Your task to perform on an android device: What's on my calendar today? Image 0: 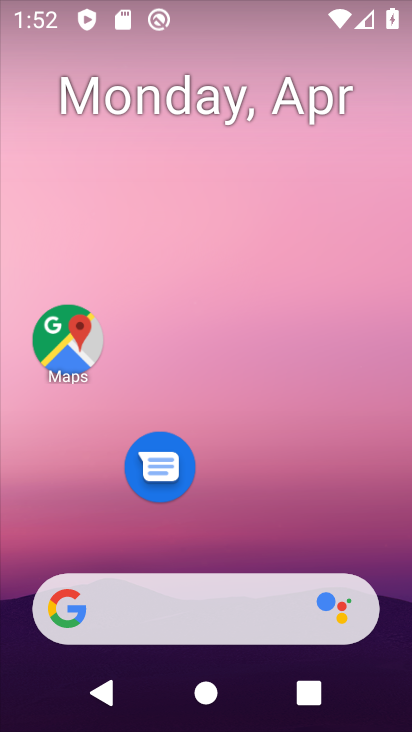
Step 0: drag from (265, 544) to (265, 0)
Your task to perform on an android device: What's on my calendar today? Image 1: 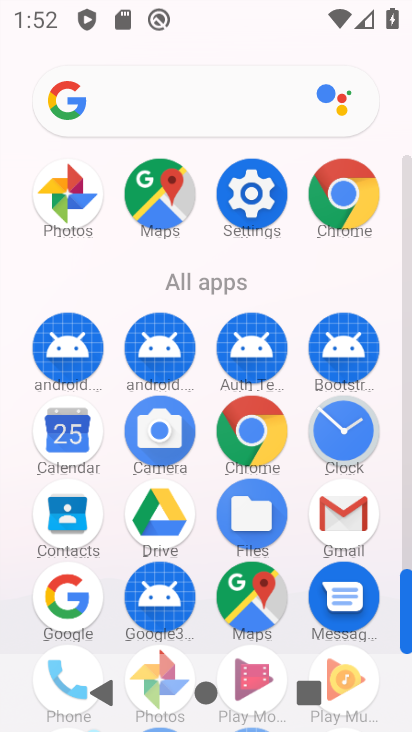
Step 1: click (56, 441)
Your task to perform on an android device: What's on my calendar today? Image 2: 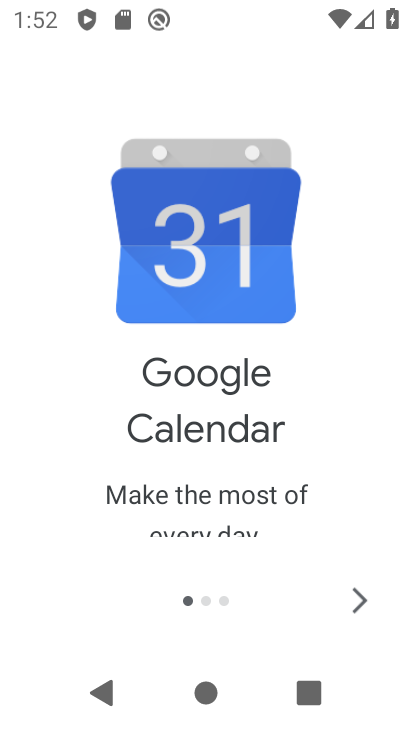
Step 2: click (350, 602)
Your task to perform on an android device: What's on my calendar today? Image 3: 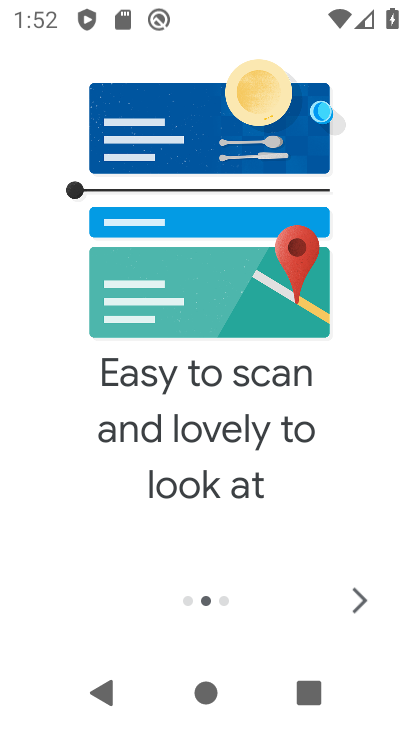
Step 3: click (353, 591)
Your task to perform on an android device: What's on my calendar today? Image 4: 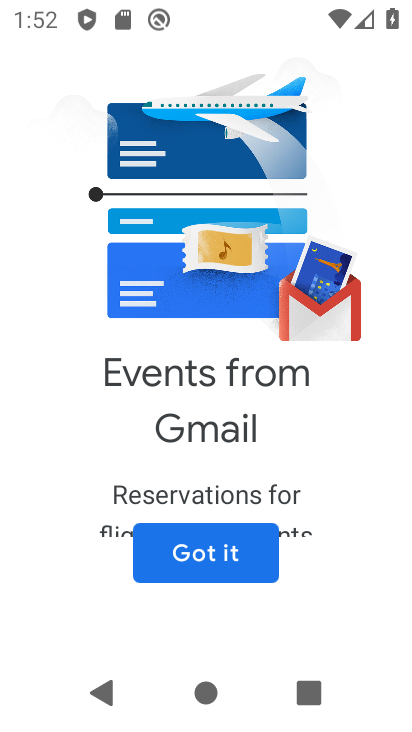
Step 4: click (225, 558)
Your task to perform on an android device: What's on my calendar today? Image 5: 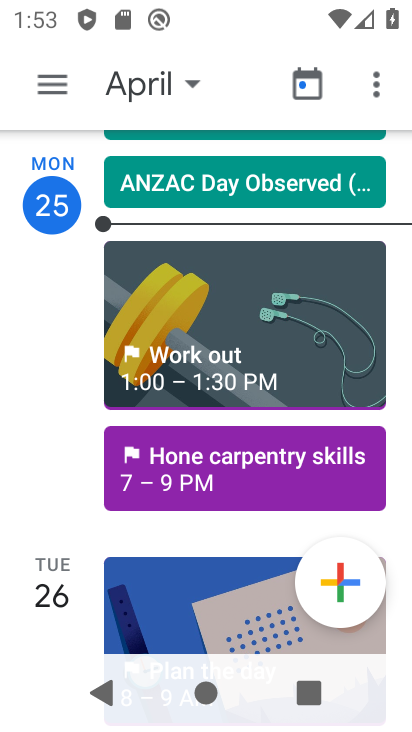
Step 5: click (121, 85)
Your task to perform on an android device: What's on my calendar today? Image 6: 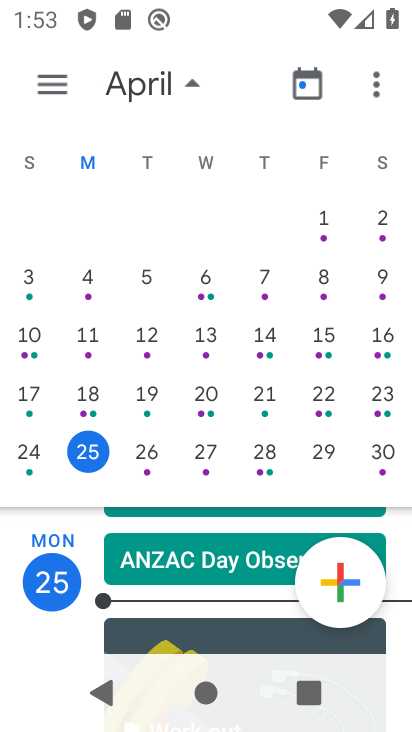
Step 6: click (82, 457)
Your task to perform on an android device: What's on my calendar today? Image 7: 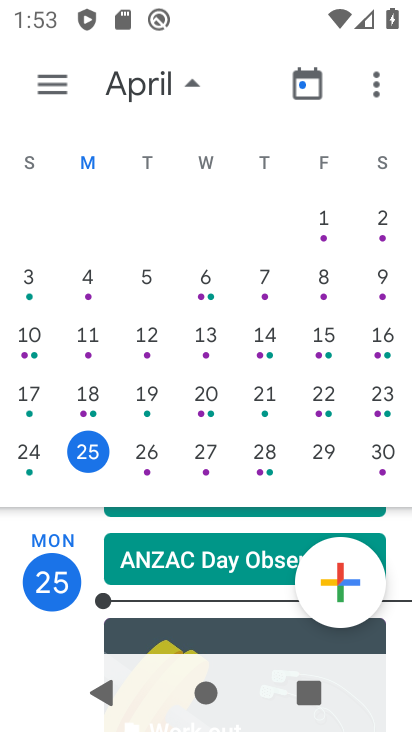
Step 7: task complete